Your task to perform on an android device: read, delete, or share a saved page in the chrome app Image 0: 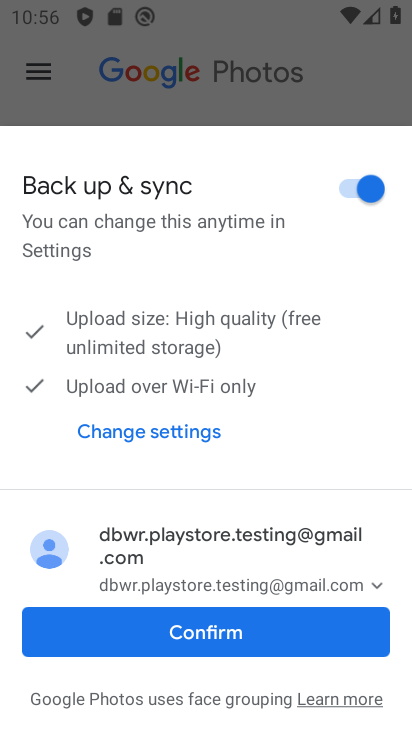
Step 0: press home button
Your task to perform on an android device: read, delete, or share a saved page in the chrome app Image 1: 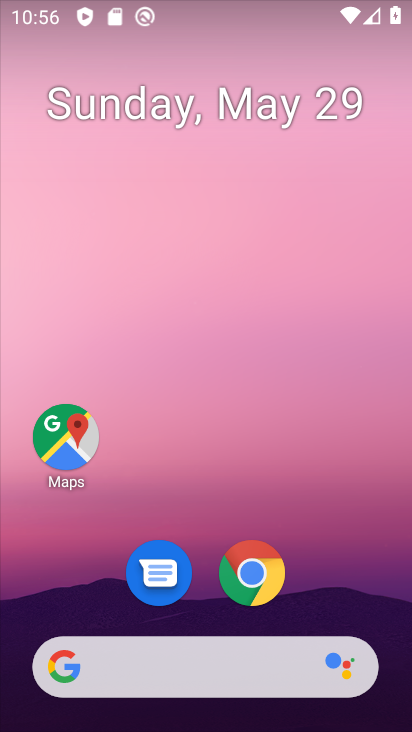
Step 1: click (240, 594)
Your task to perform on an android device: read, delete, or share a saved page in the chrome app Image 2: 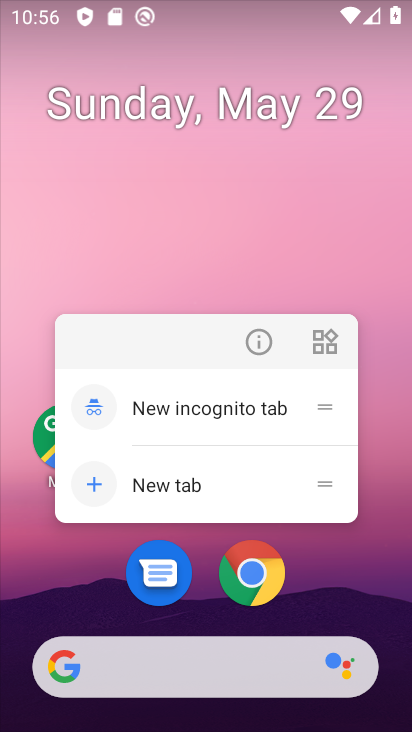
Step 2: click (257, 575)
Your task to perform on an android device: read, delete, or share a saved page in the chrome app Image 3: 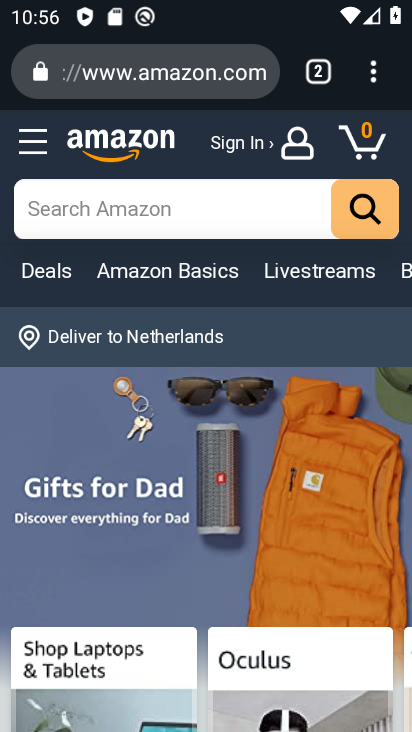
Step 3: task complete